Your task to perform on an android device: read, delete, or share a saved page in the chrome app Image 0: 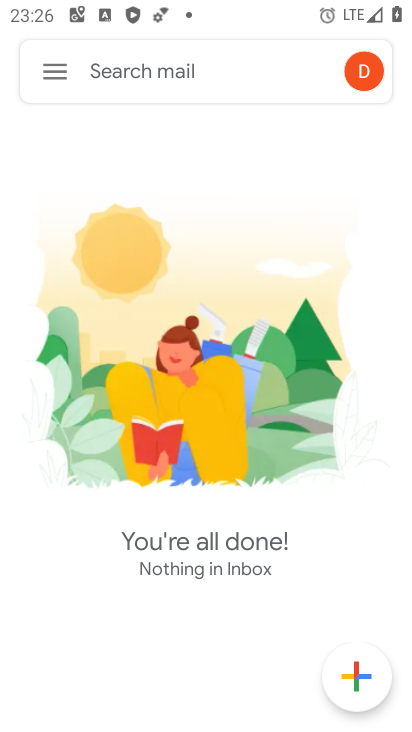
Step 0: press home button
Your task to perform on an android device: read, delete, or share a saved page in the chrome app Image 1: 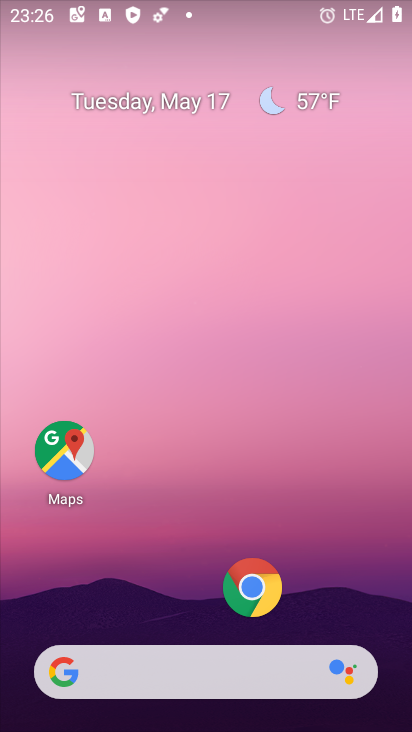
Step 1: click (251, 588)
Your task to perform on an android device: read, delete, or share a saved page in the chrome app Image 2: 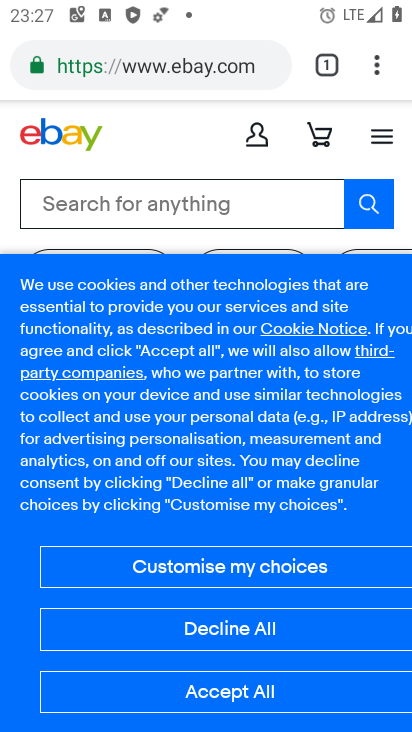
Step 2: click (376, 69)
Your task to perform on an android device: read, delete, or share a saved page in the chrome app Image 3: 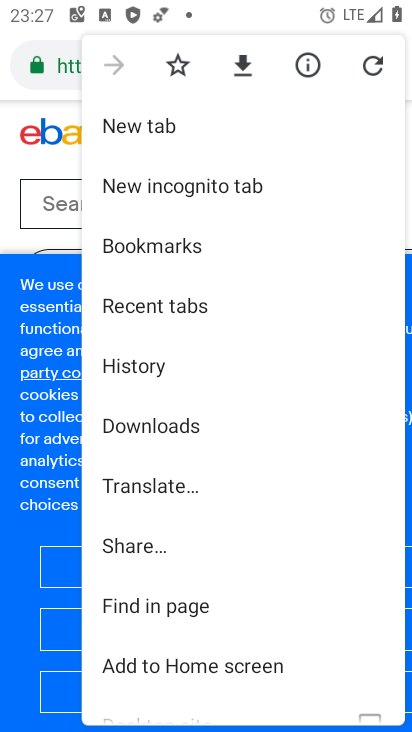
Step 3: drag from (173, 687) to (392, 148)
Your task to perform on an android device: read, delete, or share a saved page in the chrome app Image 4: 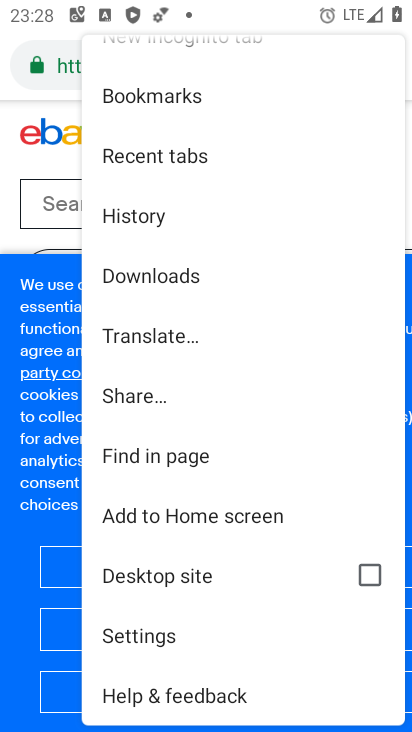
Step 4: press back button
Your task to perform on an android device: read, delete, or share a saved page in the chrome app Image 5: 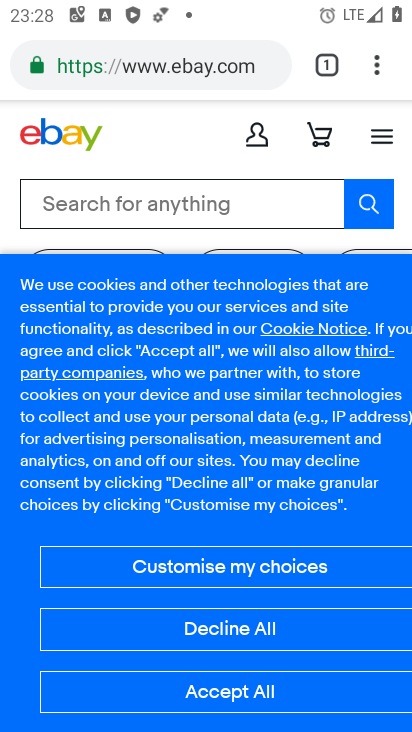
Step 5: click (326, 62)
Your task to perform on an android device: read, delete, or share a saved page in the chrome app Image 6: 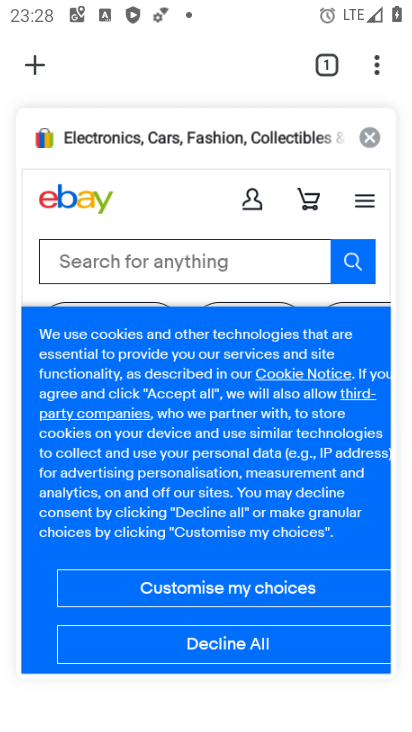
Step 6: click (31, 71)
Your task to perform on an android device: read, delete, or share a saved page in the chrome app Image 7: 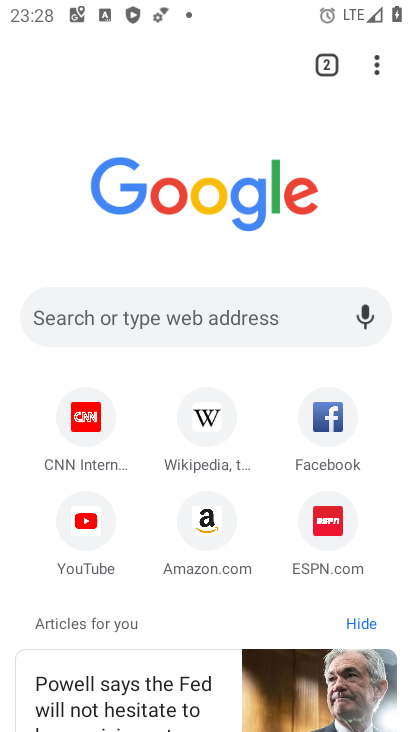
Step 7: click (332, 439)
Your task to perform on an android device: read, delete, or share a saved page in the chrome app Image 8: 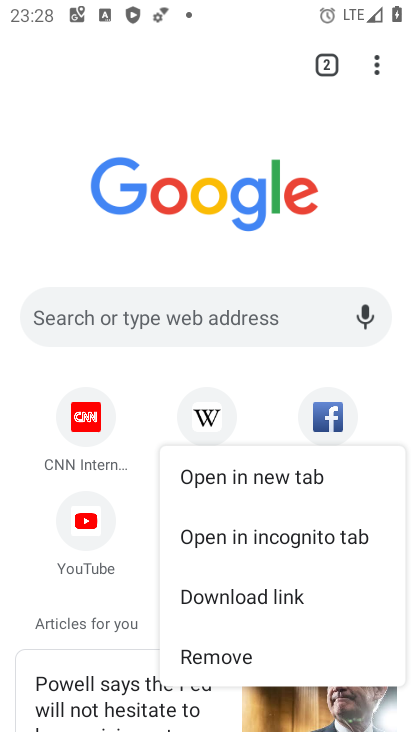
Step 8: click (206, 660)
Your task to perform on an android device: read, delete, or share a saved page in the chrome app Image 9: 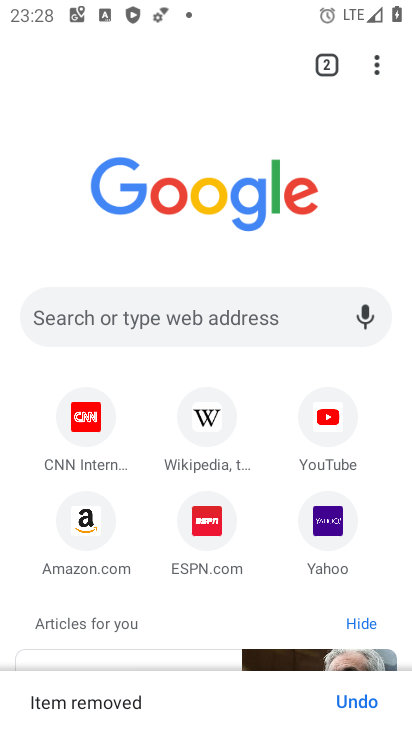
Step 9: task complete